Your task to perform on an android device: View the shopping cart on costco.com. Image 0: 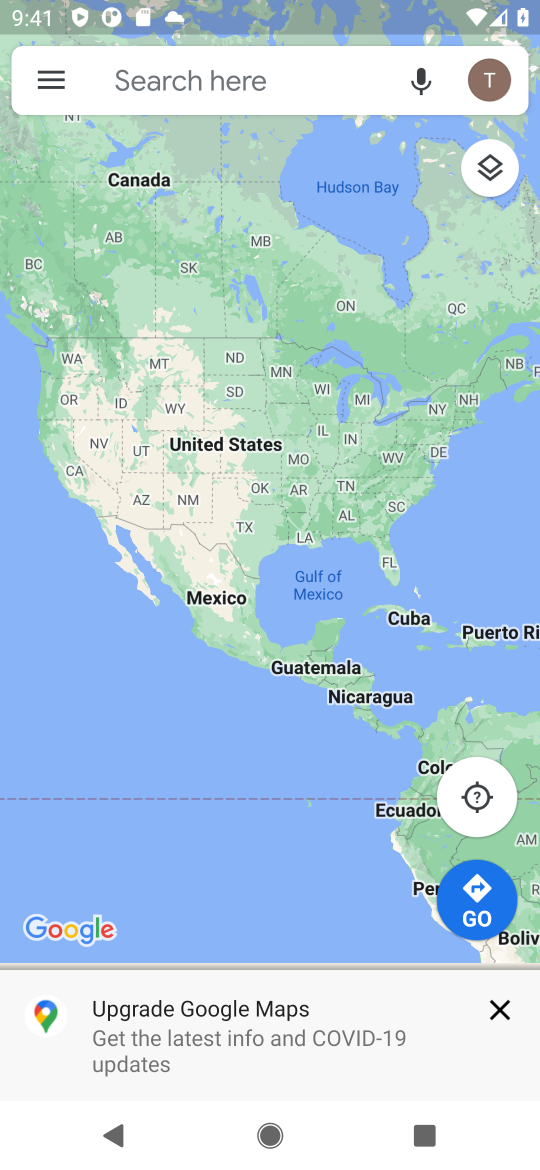
Step 0: press home button
Your task to perform on an android device: View the shopping cart on costco.com. Image 1: 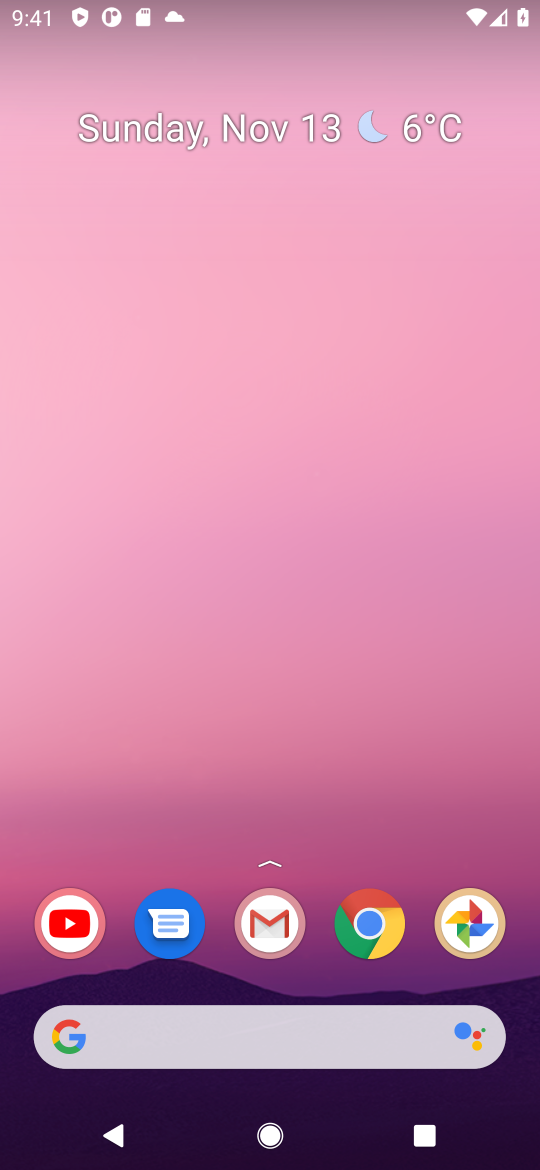
Step 1: click (365, 932)
Your task to perform on an android device: View the shopping cart on costco.com. Image 2: 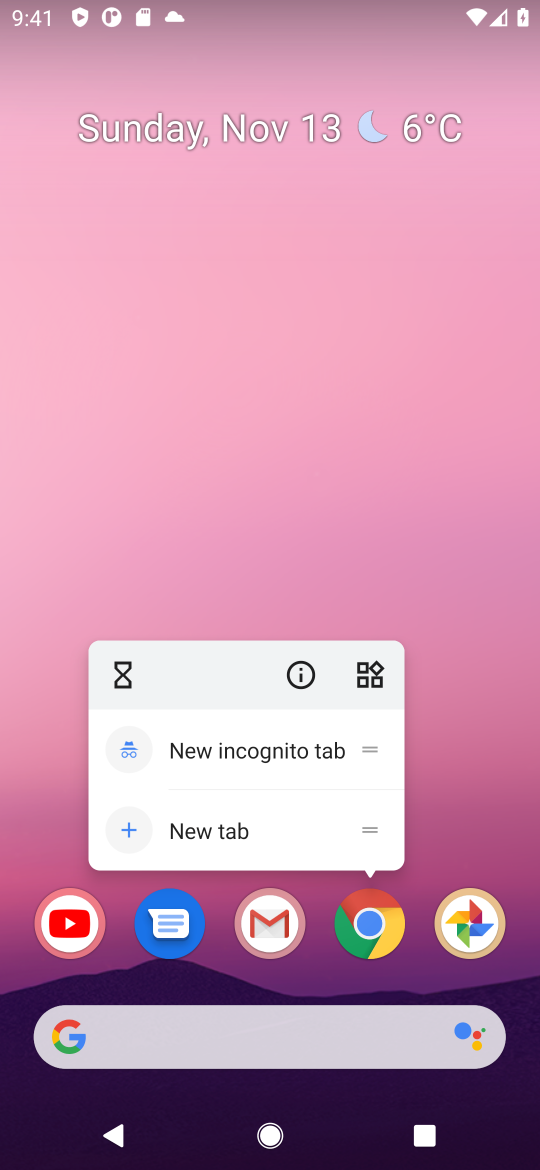
Step 2: click (356, 923)
Your task to perform on an android device: View the shopping cart on costco.com. Image 3: 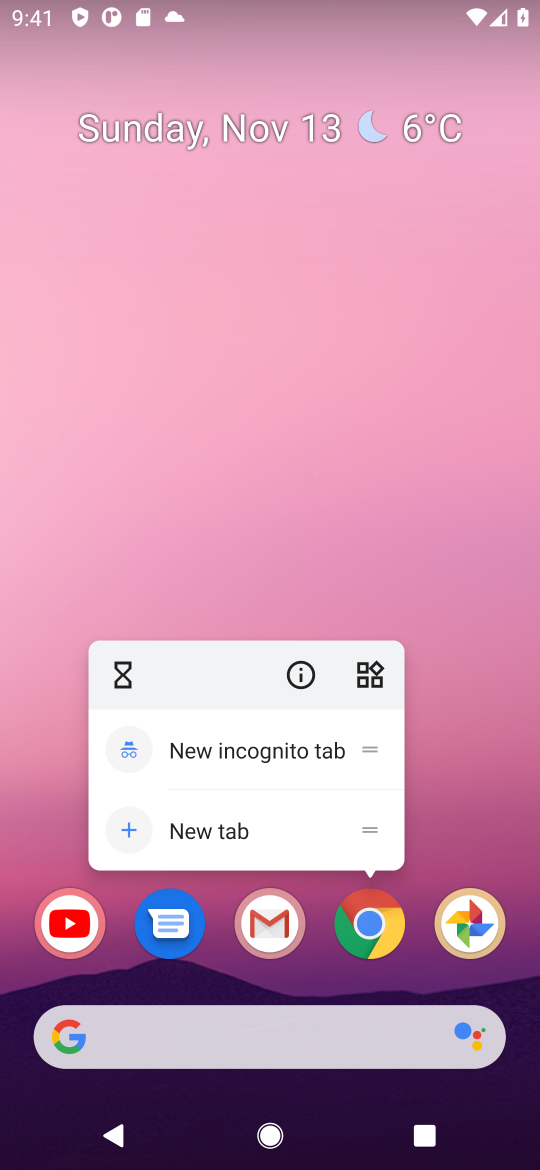
Step 3: click (356, 923)
Your task to perform on an android device: View the shopping cart on costco.com. Image 4: 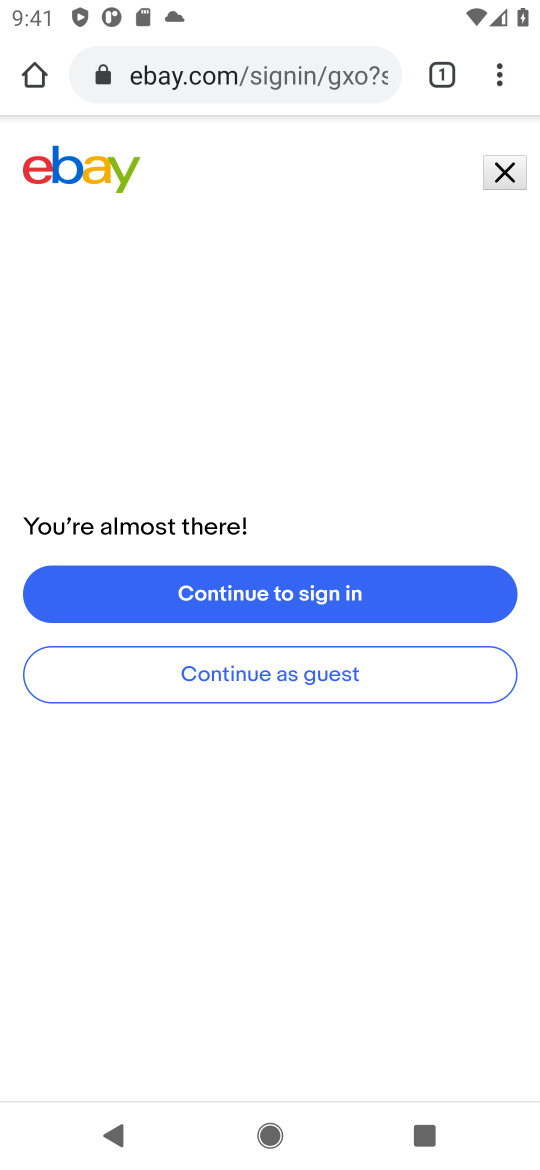
Step 4: click (313, 82)
Your task to perform on an android device: View the shopping cart on costco.com. Image 5: 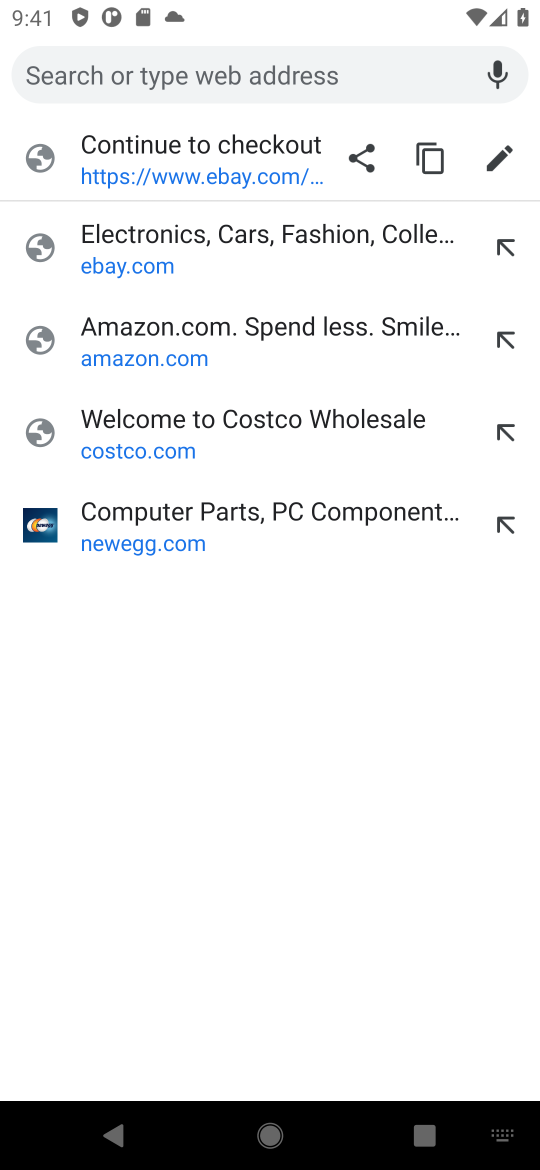
Step 5: click (218, 430)
Your task to perform on an android device: View the shopping cart on costco.com. Image 6: 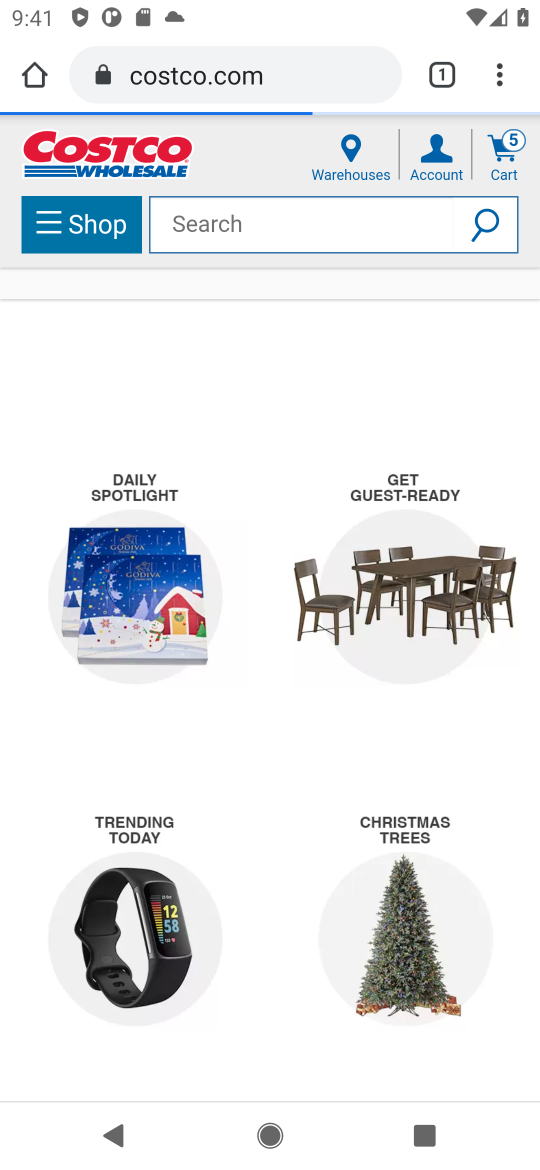
Step 6: click (493, 161)
Your task to perform on an android device: View the shopping cart on costco.com. Image 7: 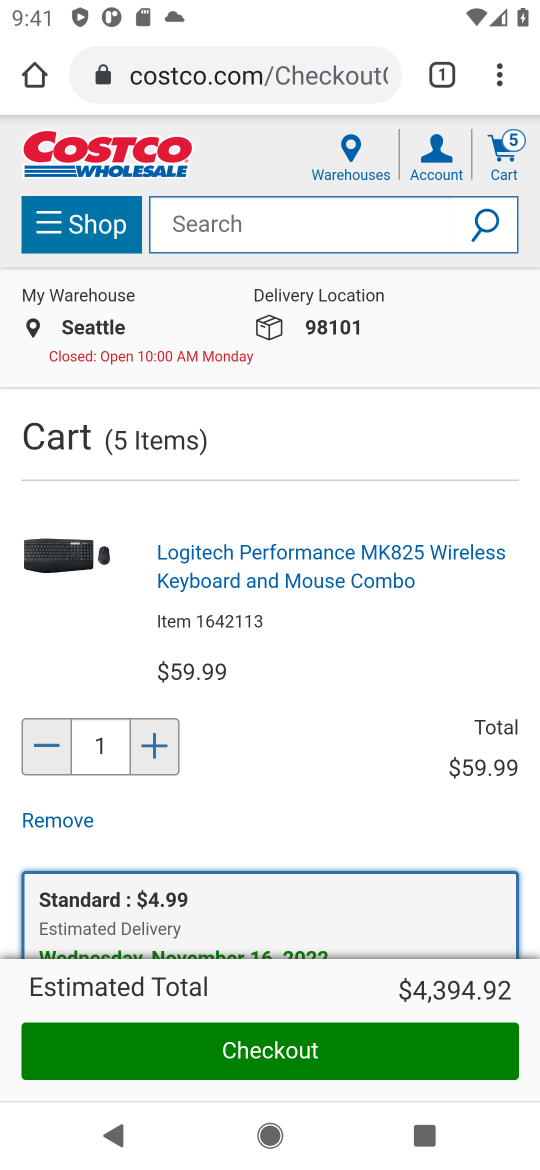
Step 7: task complete